Your task to perform on an android device: open device folders in google photos Image 0: 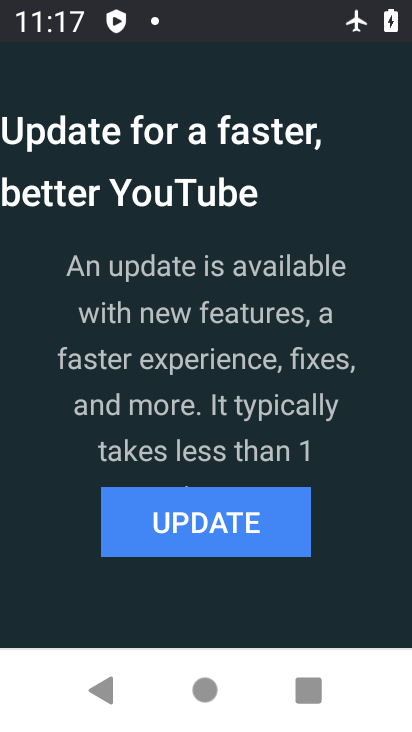
Step 0: press home button
Your task to perform on an android device: open device folders in google photos Image 1: 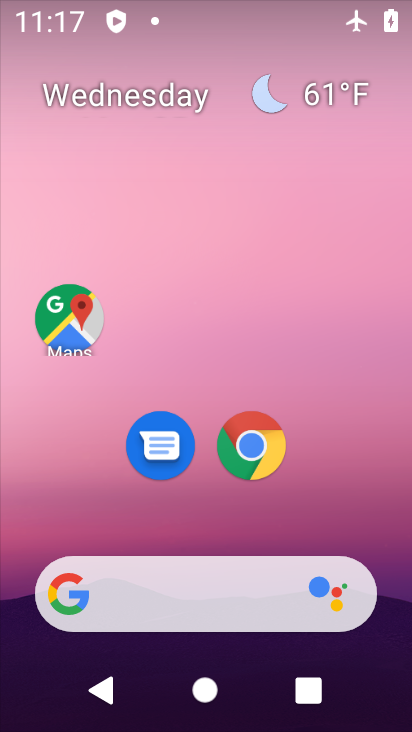
Step 1: drag from (338, 499) to (325, 161)
Your task to perform on an android device: open device folders in google photos Image 2: 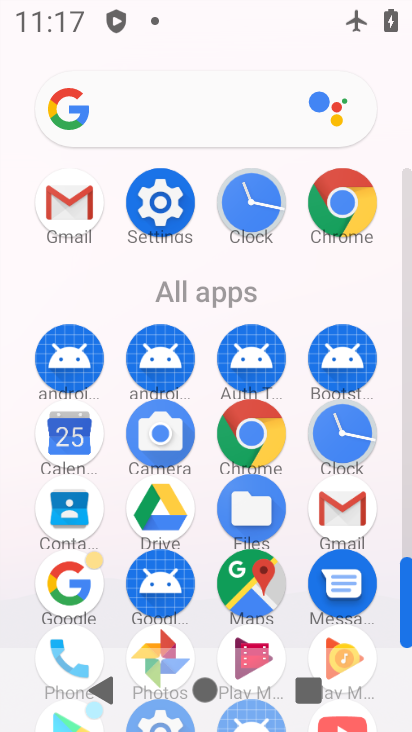
Step 2: drag from (216, 560) to (235, 280)
Your task to perform on an android device: open device folders in google photos Image 3: 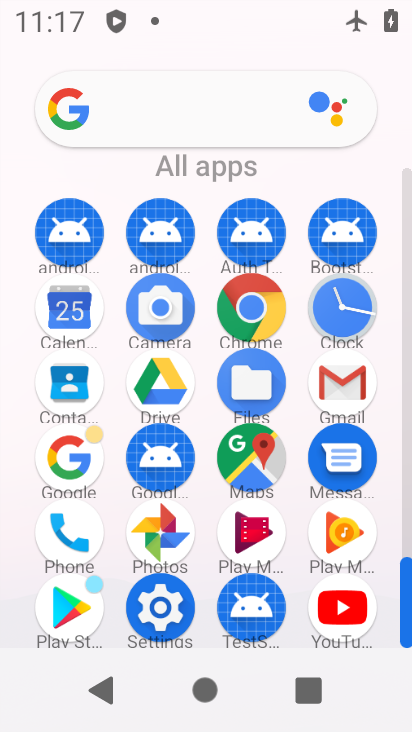
Step 3: click (152, 521)
Your task to perform on an android device: open device folders in google photos Image 4: 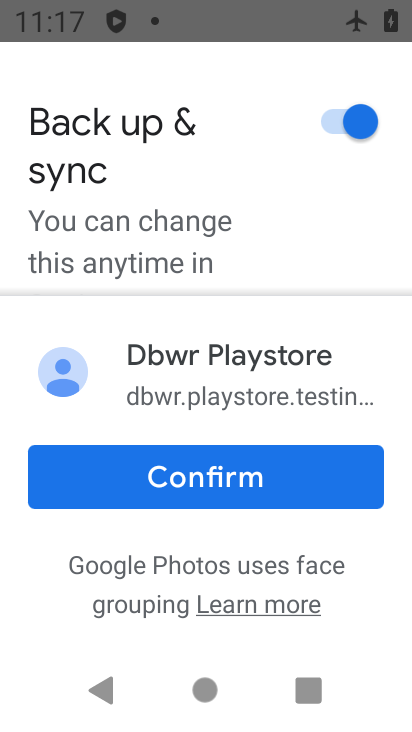
Step 4: click (71, 109)
Your task to perform on an android device: open device folders in google photos Image 5: 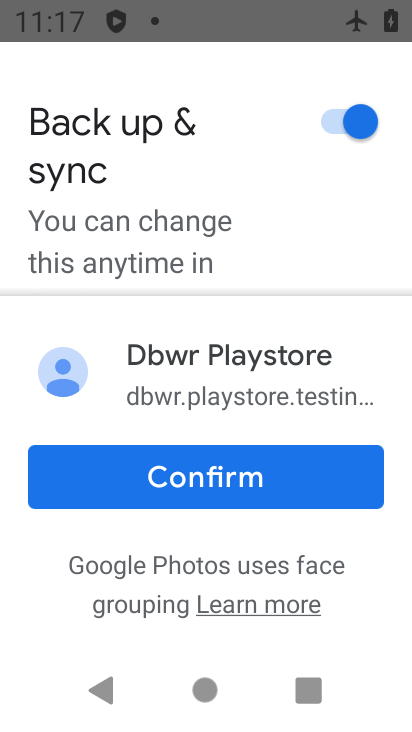
Step 5: click (174, 486)
Your task to perform on an android device: open device folders in google photos Image 6: 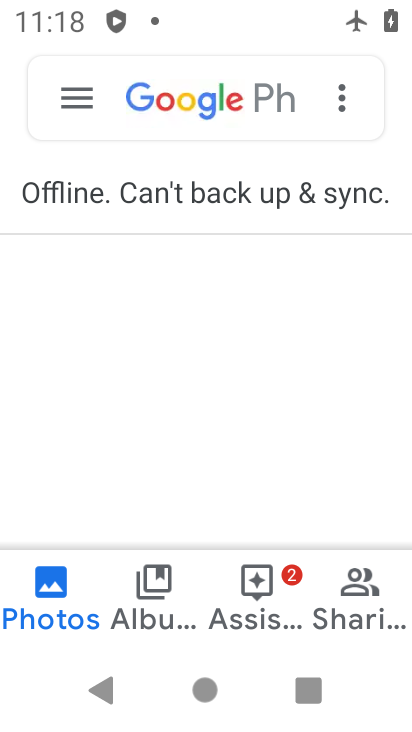
Step 6: click (67, 65)
Your task to perform on an android device: open device folders in google photos Image 7: 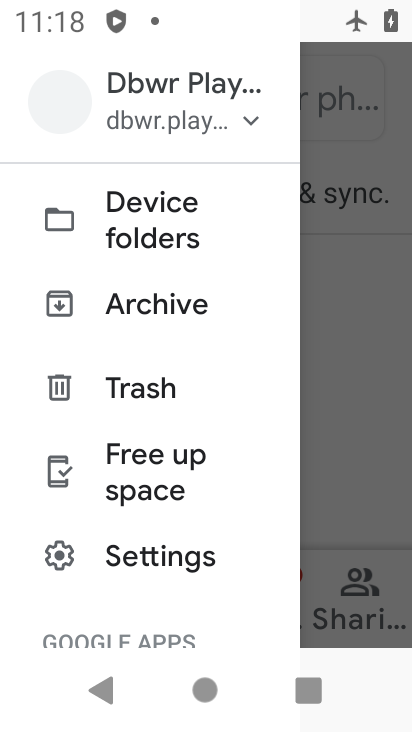
Step 7: click (67, 230)
Your task to perform on an android device: open device folders in google photos Image 8: 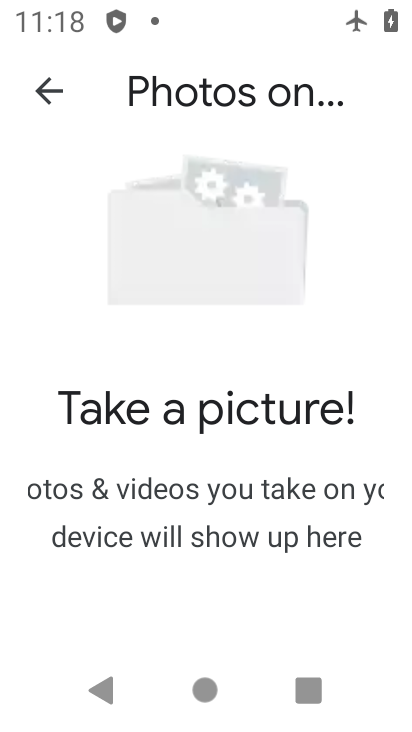
Step 8: task complete